Your task to perform on an android device: open a bookmark in the chrome app Image 0: 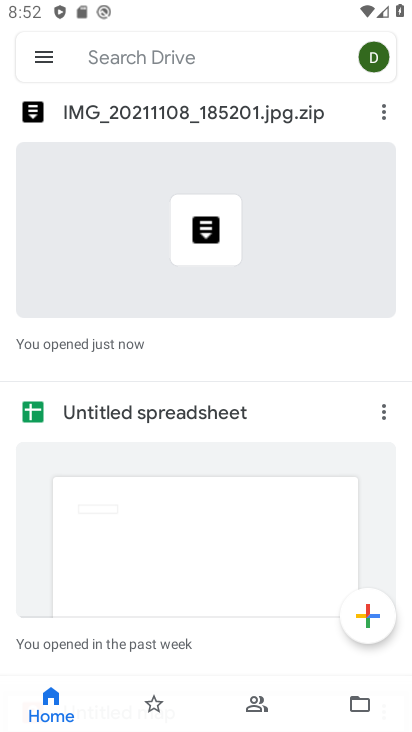
Step 0: press home button
Your task to perform on an android device: open a bookmark in the chrome app Image 1: 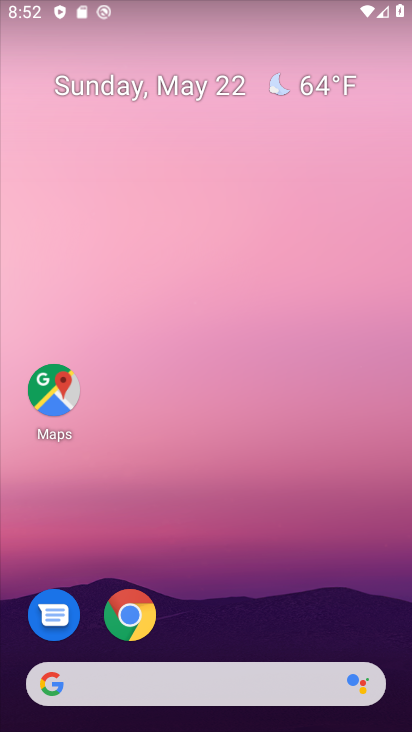
Step 1: click (137, 628)
Your task to perform on an android device: open a bookmark in the chrome app Image 2: 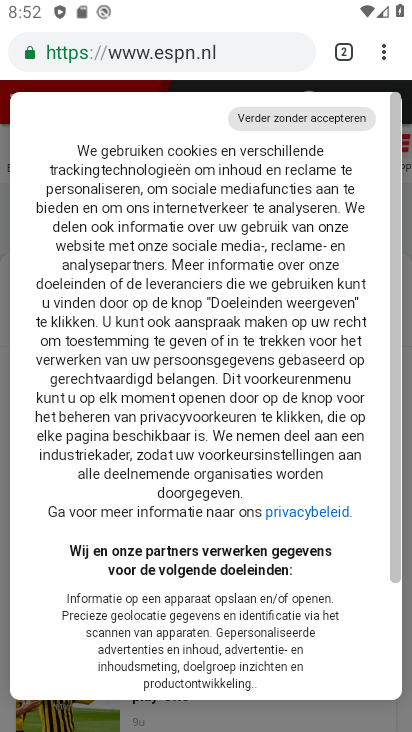
Step 2: drag from (382, 53) to (249, 203)
Your task to perform on an android device: open a bookmark in the chrome app Image 3: 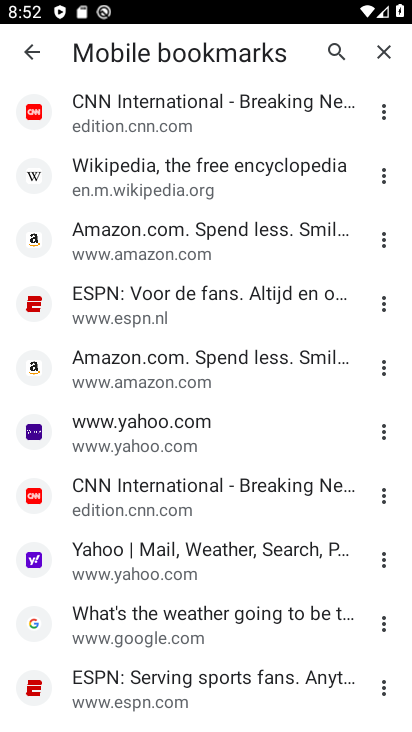
Step 3: click (153, 193)
Your task to perform on an android device: open a bookmark in the chrome app Image 4: 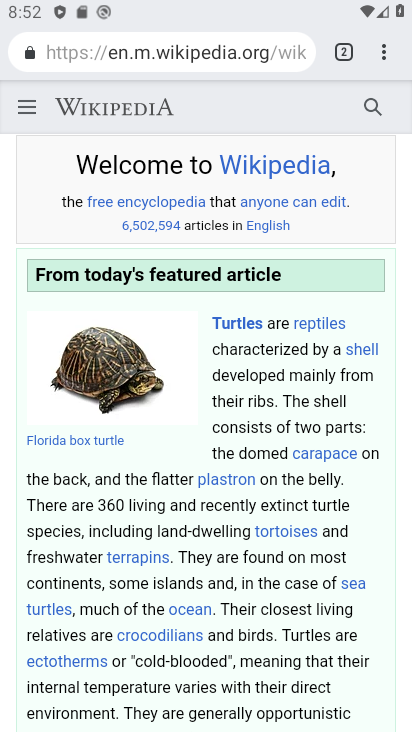
Step 4: task complete